Your task to perform on an android device: turn off sleep mode Image 0: 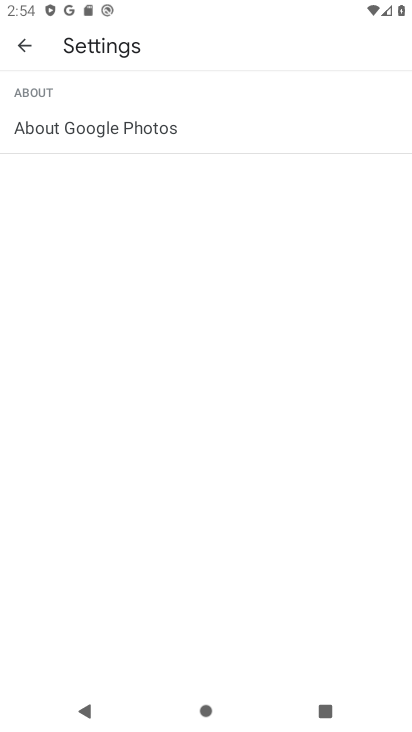
Step 0: press home button
Your task to perform on an android device: turn off sleep mode Image 1: 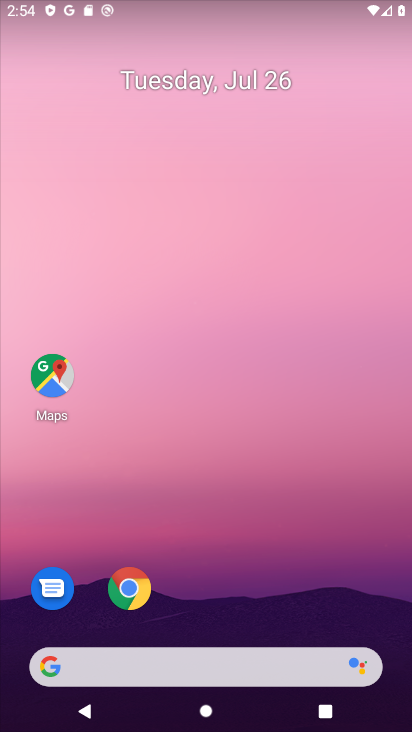
Step 1: drag from (264, 616) to (255, 215)
Your task to perform on an android device: turn off sleep mode Image 2: 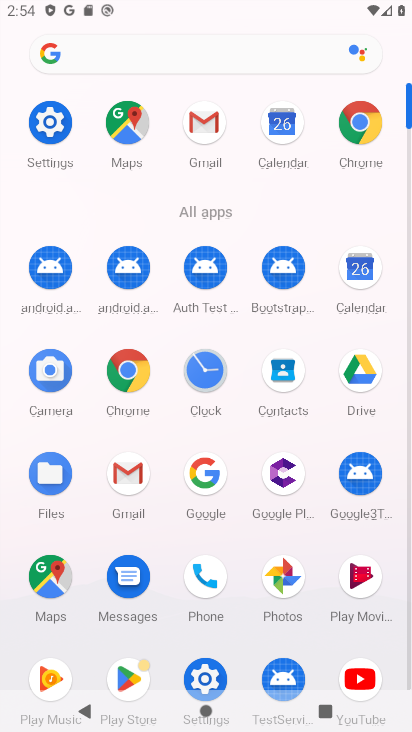
Step 2: click (63, 122)
Your task to perform on an android device: turn off sleep mode Image 3: 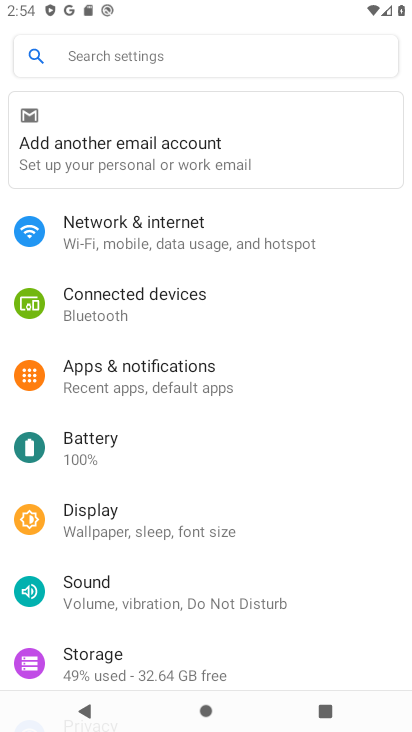
Step 3: click (219, 521)
Your task to perform on an android device: turn off sleep mode Image 4: 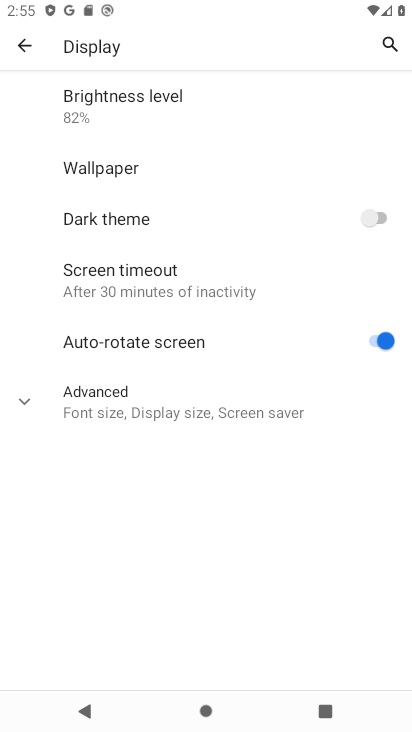
Step 4: click (269, 418)
Your task to perform on an android device: turn off sleep mode Image 5: 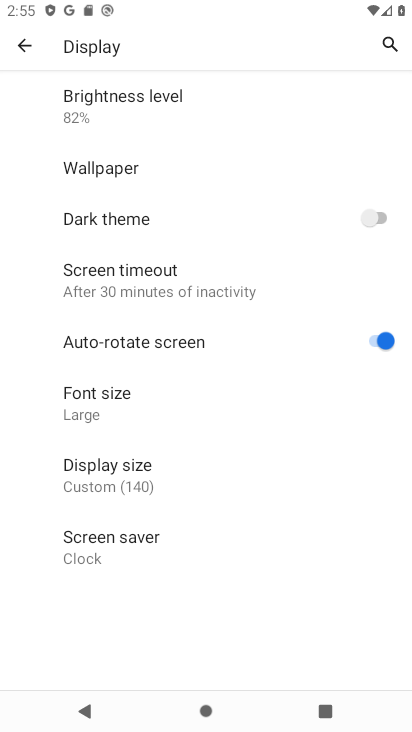
Step 5: task complete